Your task to perform on an android device: Set the phone to "Do not disturb". Image 0: 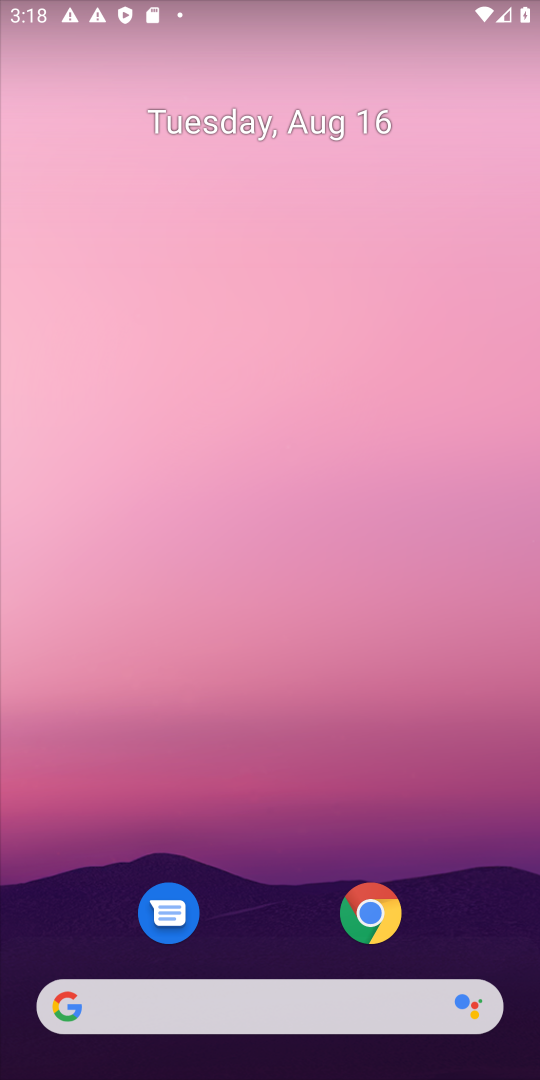
Step 0: drag from (493, 927) to (426, 162)
Your task to perform on an android device: Set the phone to "Do not disturb". Image 1: 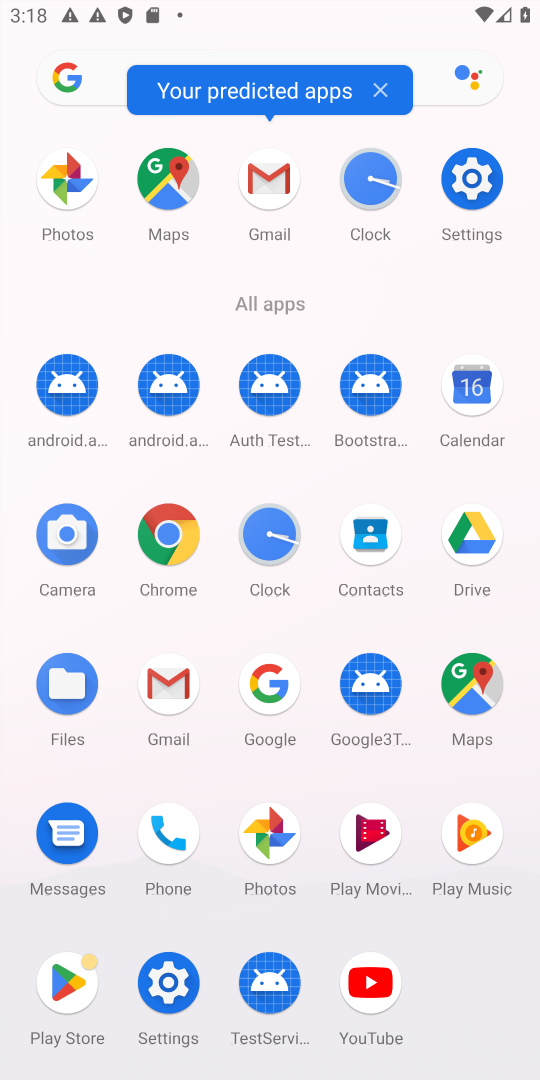
Step 1: click (171, 982)
Your task to perform on an android device: Set the phone to "Do not disturb". Image 2: 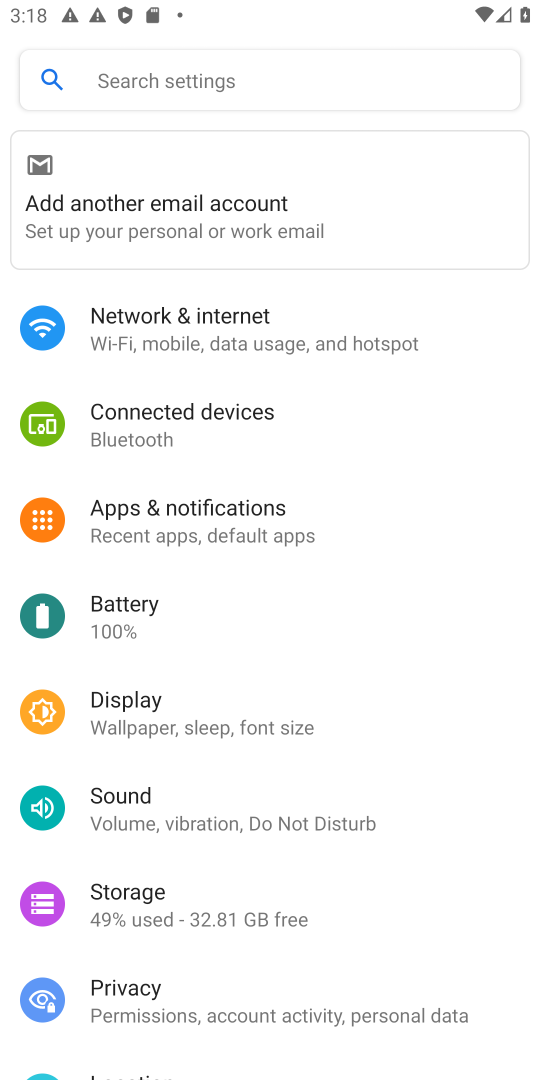
Step 2: click (137, 802)
Your task to perform on an android device: Set the phone to "Do not disturb". Image 3: 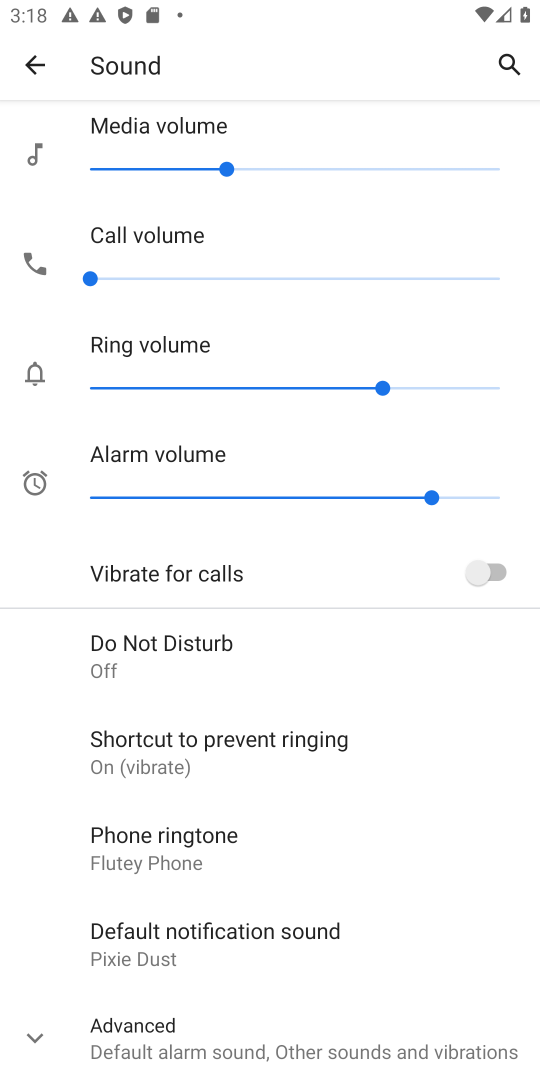
Step 3: click (123, 643)
Your task to perform on an android device: Set the phone to "Do not disturb". Image 4: 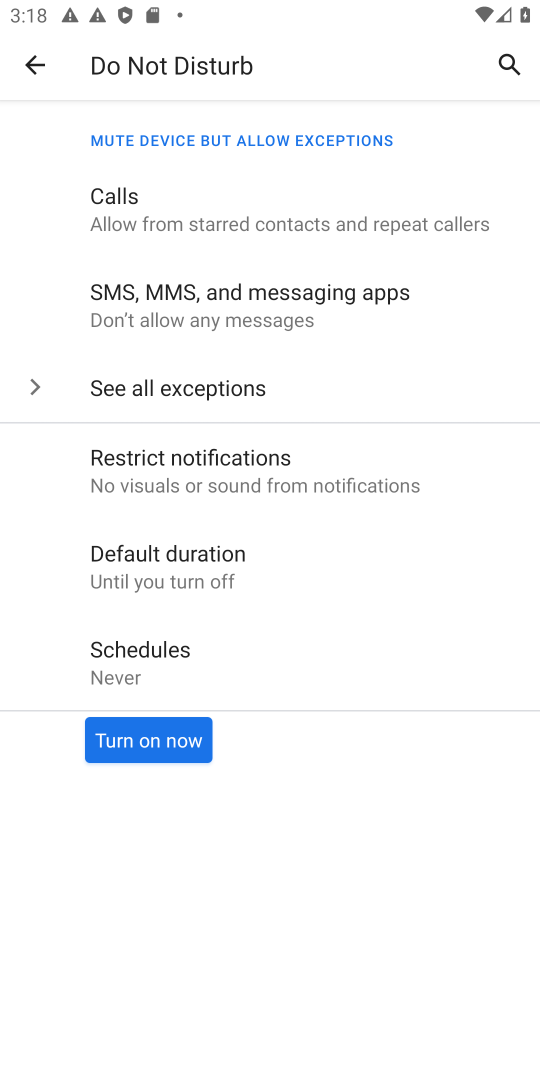
Step 4: click (136, 741)
Your task to perform on an android device: Set the phone to "Do not disturb". Image 5: 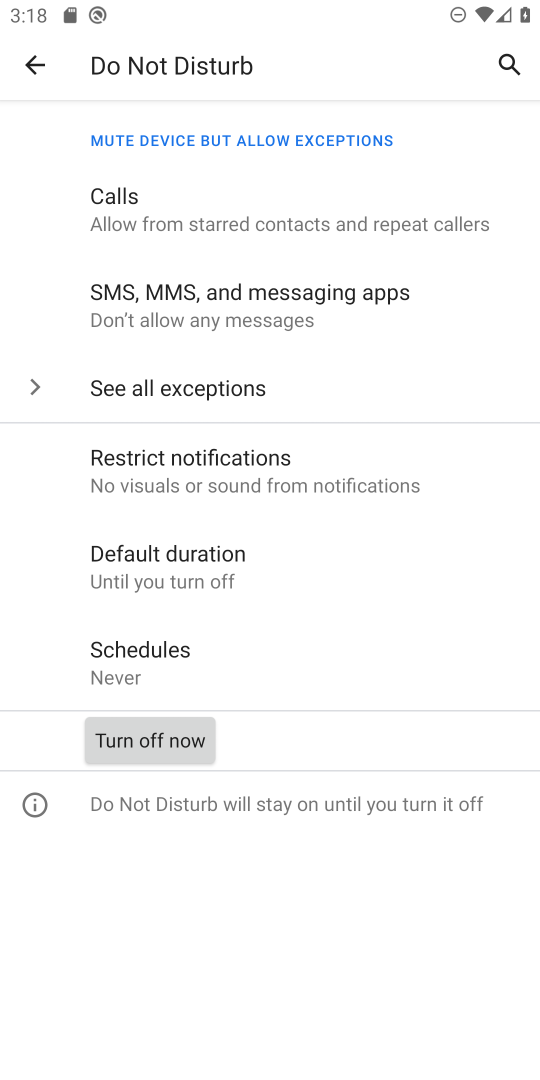
Step 5: task complete